Your task to perform on an android device: Open Chrome and go to settings Image 0: 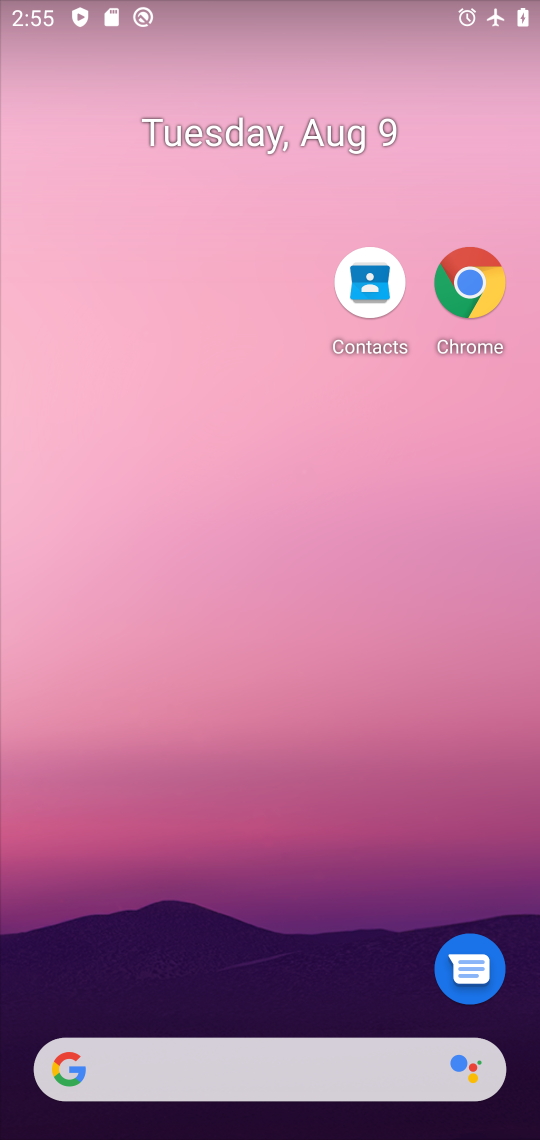
Step 0: press home button
Your task to perform on an android device: Open Chrome and go to settings Image 1: 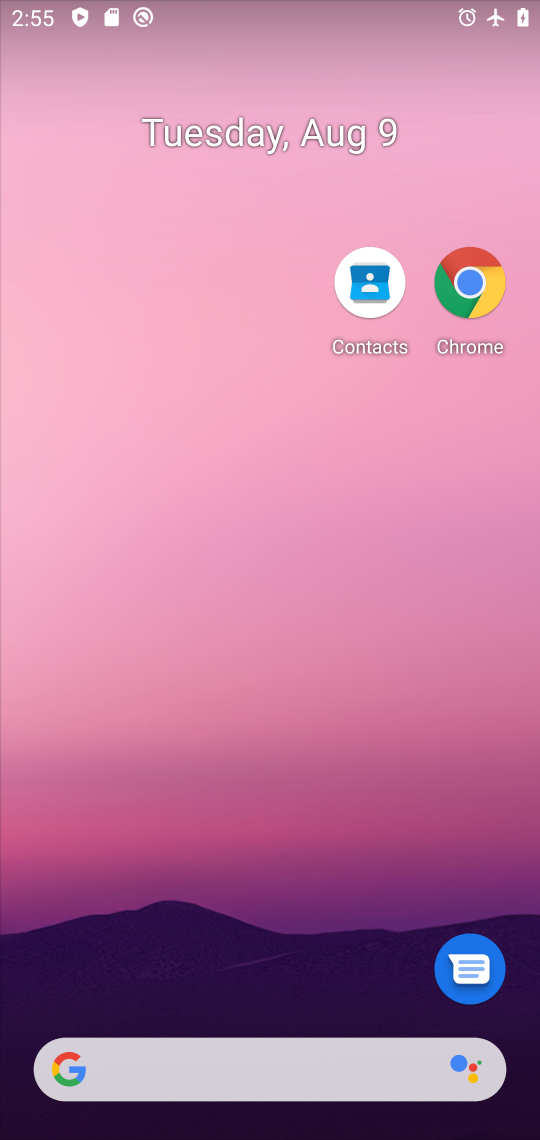
Step 1: drag from (230, 892) to (236, 191)
Your task to perform on an android device: Open Chrome and go to settings Image 2: 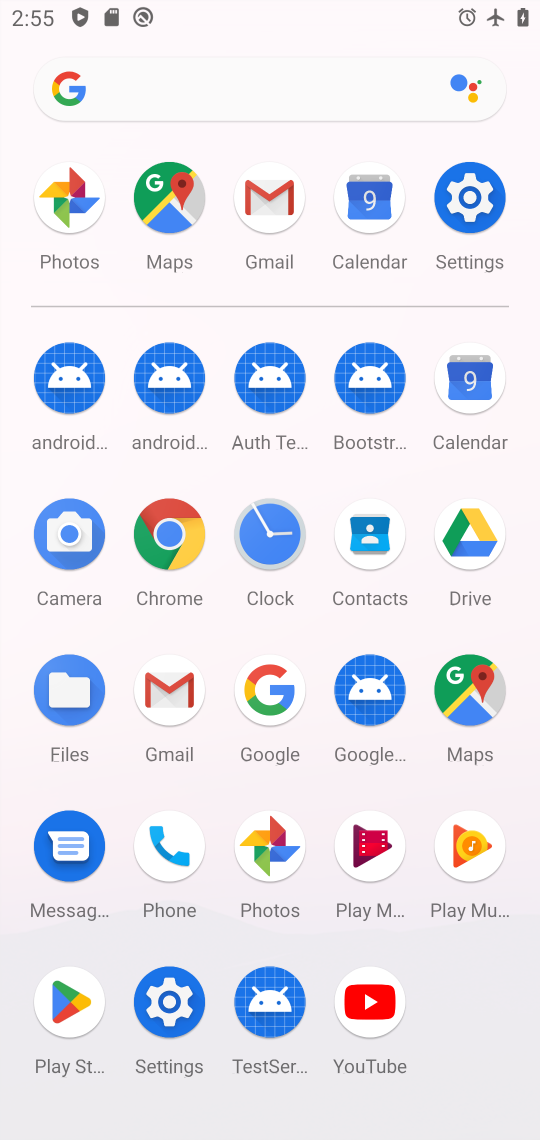
Step 2: click (466, 192)
Your task to perform on an android device: Open Chrome and go to settings Image 3: 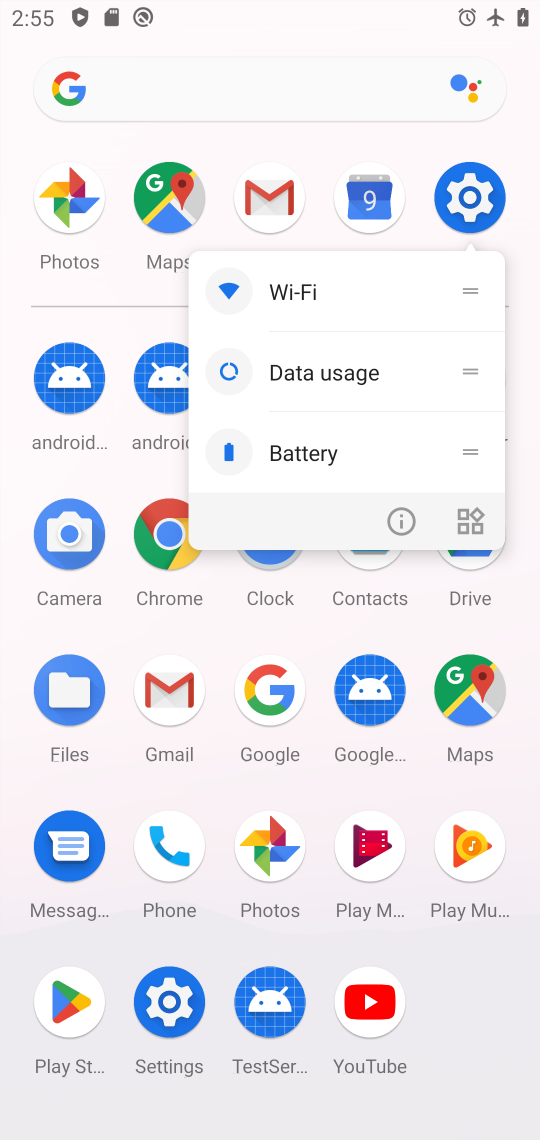
Step 3: click (395, 515)
Your task to perform on an android device: Open Chrome and go to settings Image 4: 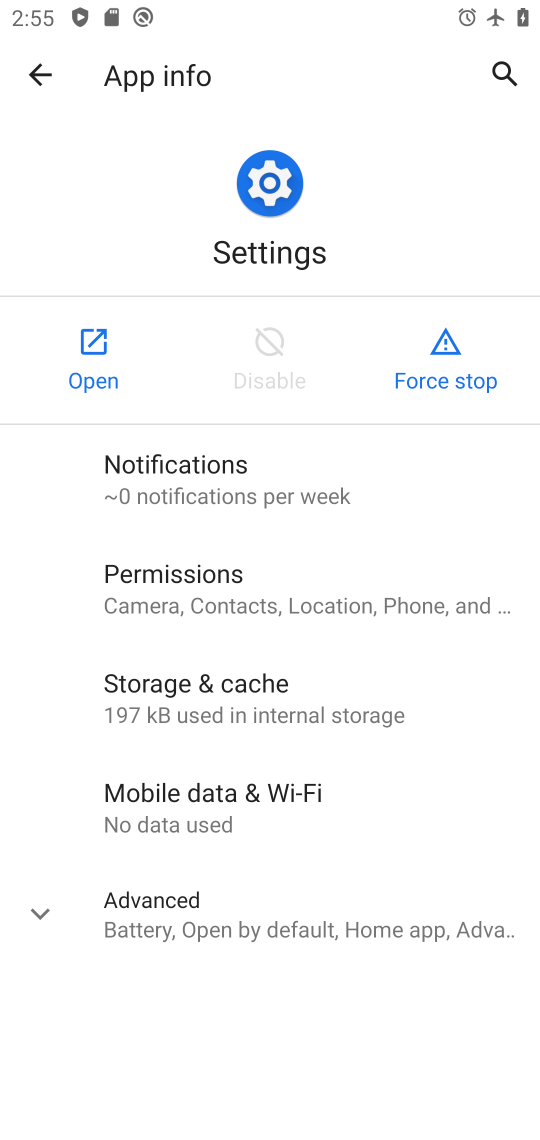
Step 4: press home button
Your task to perform on an android device: Open Chrome and go to settings Image 5: 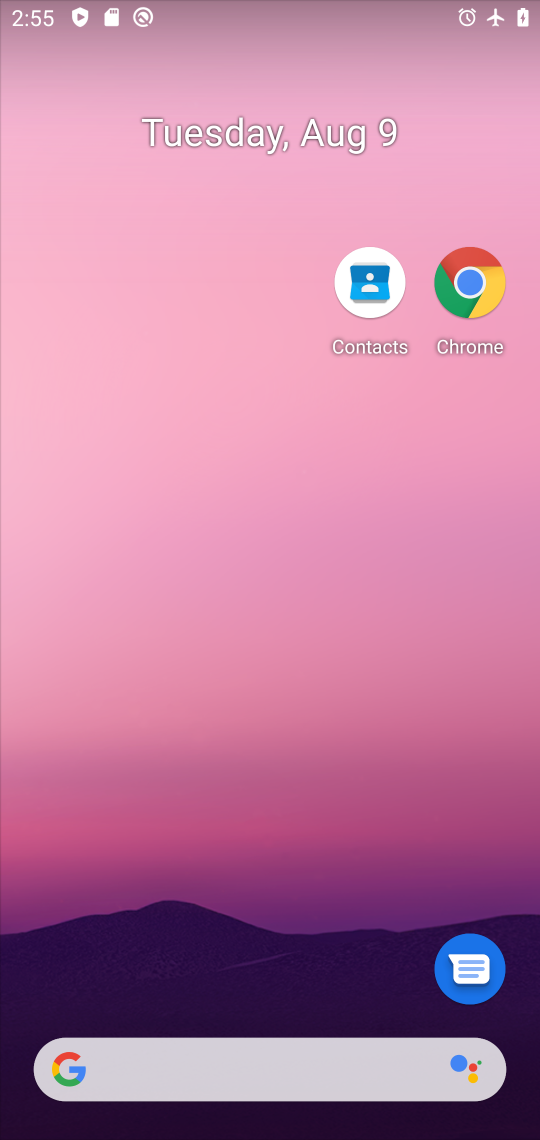
Step 5: click (469, 267)
Your task to perform on an android device: Open Chrome and go to settings Image 6: 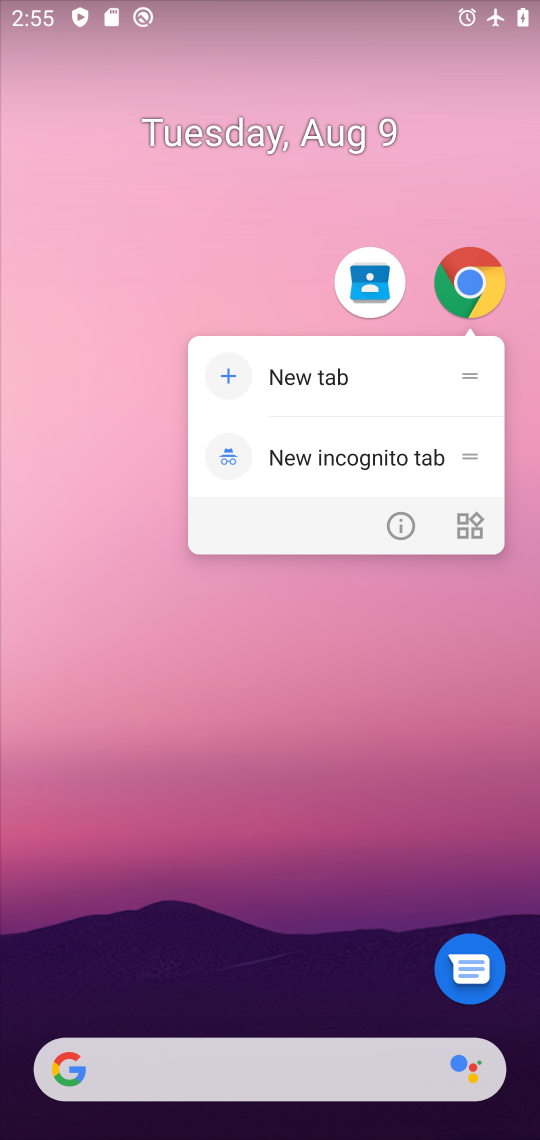
Step 6: click (396, 532)
Your task to perform on an android device: Open Chrome and go to settings Image 7: 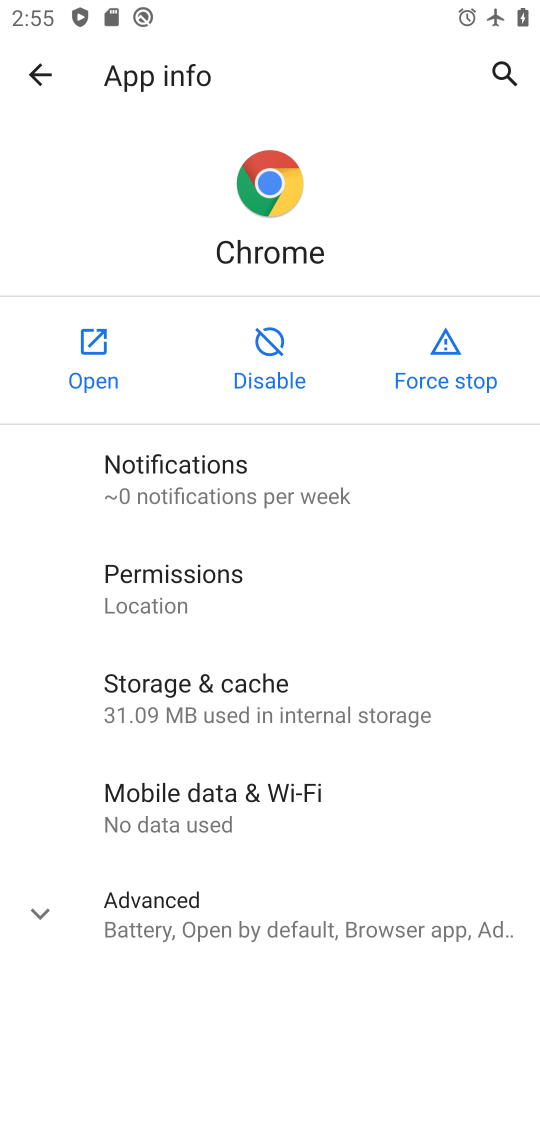
Step 7: click (79, 355)
Your task to perform on an android device: Open Chrome and go to settings Image 8: 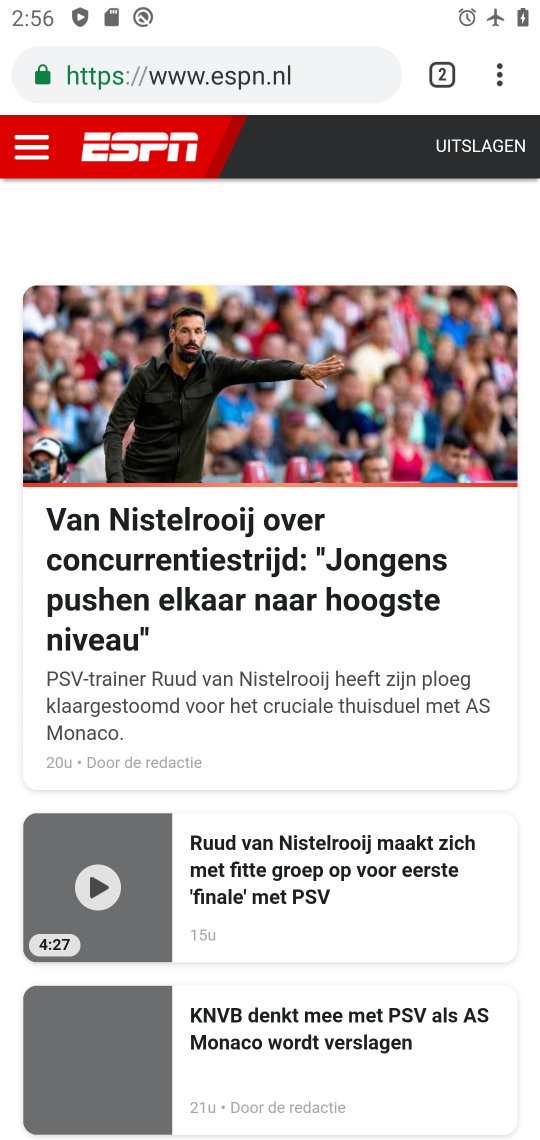
Step 8: task complete